Your task to perform on an android device: Do I have any events today? Image 0: 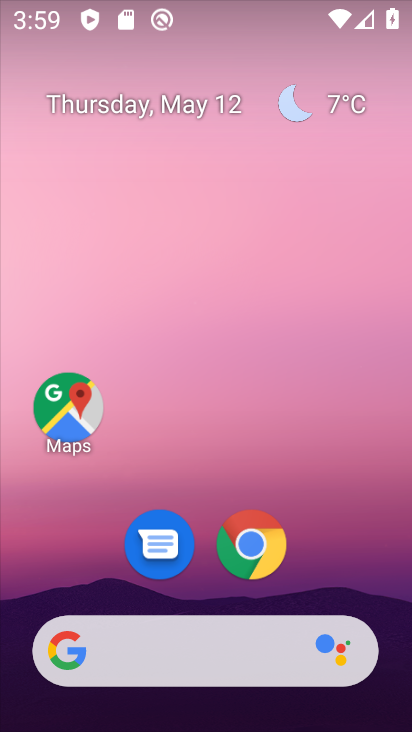
Step 0: drag from (347, 359) to (364, 110)
Your task to perform on an android device: Do I have any events today? Image 1: 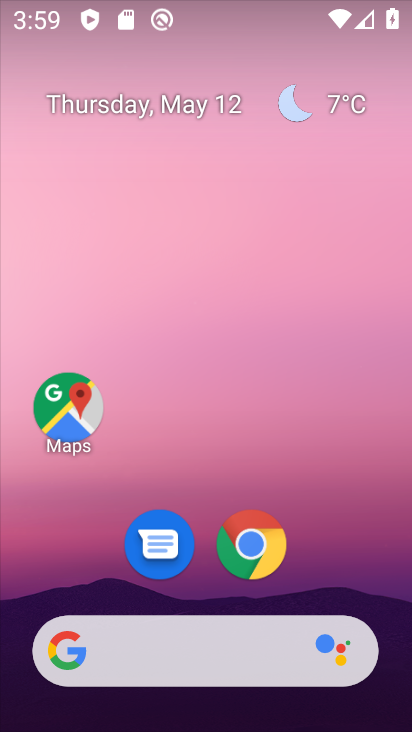
Step 1: drag from (336, 580) to (377, 111)
Your task to perform on an android device: Do I have any events today? Image 2: 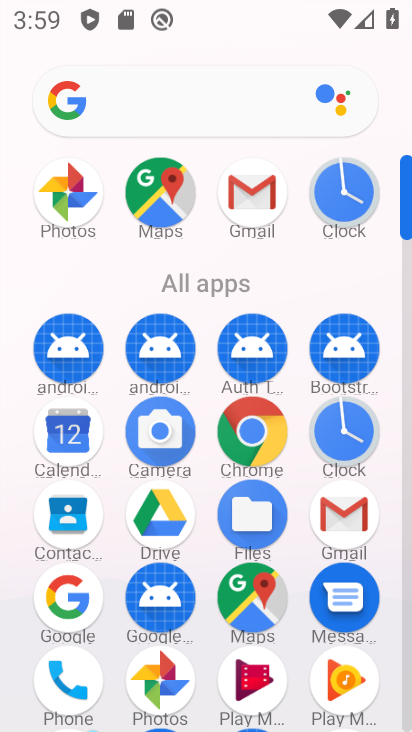
Step 2: click (71, 414)
Your task to perform on an android device: Do I have any events today? Image 3: 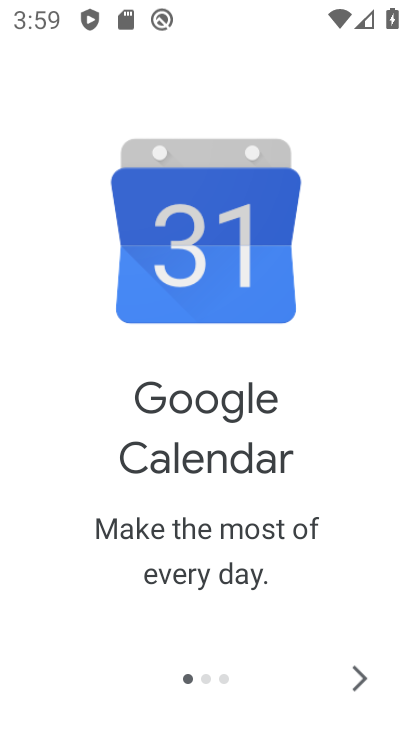
Step 3: click (363, 671)
Your task to perform on an android device: Do I have any events today? Image 4: 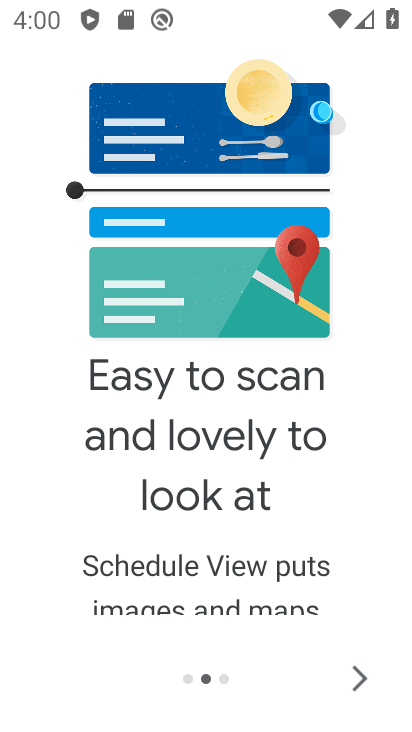
Step 4: click (356, 675)
Your task to perform on an android device: Do I have any events today? Image 5: 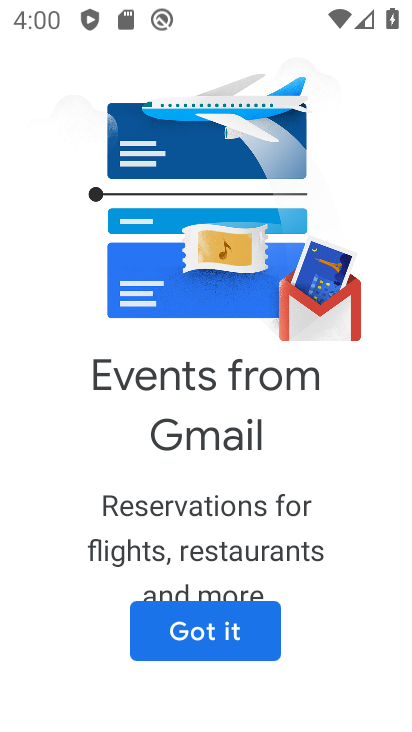
Step 5: click (248, 632)
Your task to perform on an android device: Do I have any events today? Image 6: 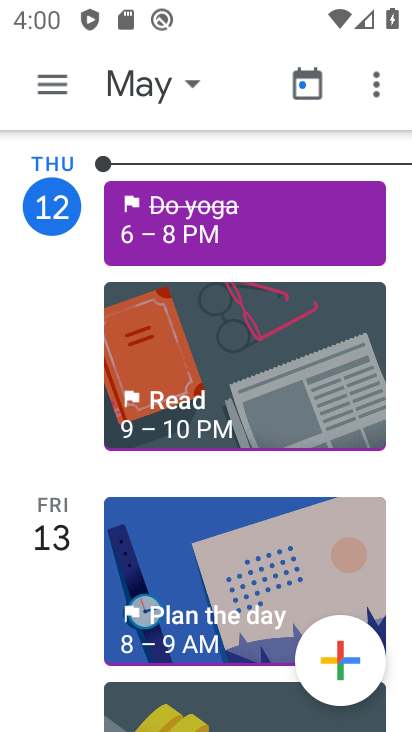
Step 6: click (146, 82)
Your task to perform on an android device: Do I have any events today? Image 7: 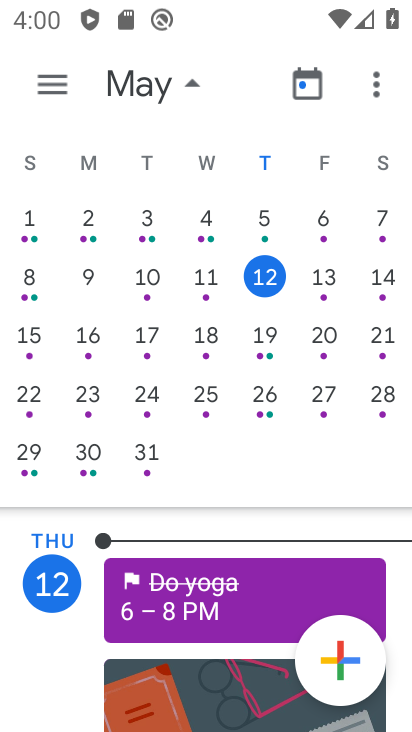
Step 7: click (259, 278)
Your task to perform on an android device: Do I have any events today? Image 8: 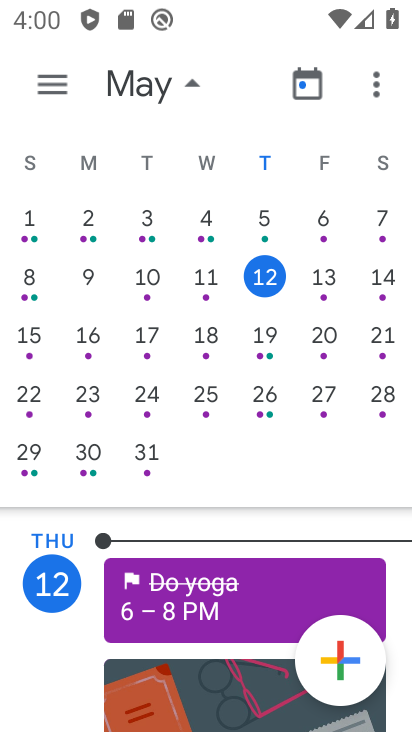
Step 8: task complete